Your task to perform on an android device: Open the stopwatch Image 0: 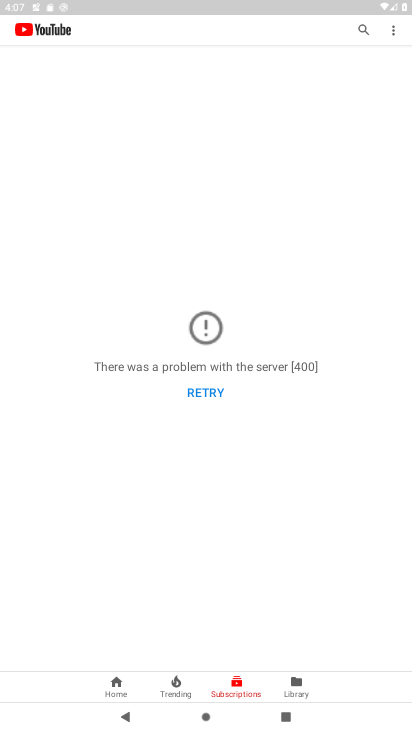
Step 0: press home button
Your task to perform on an android device: Open the stopwatch Image 1: 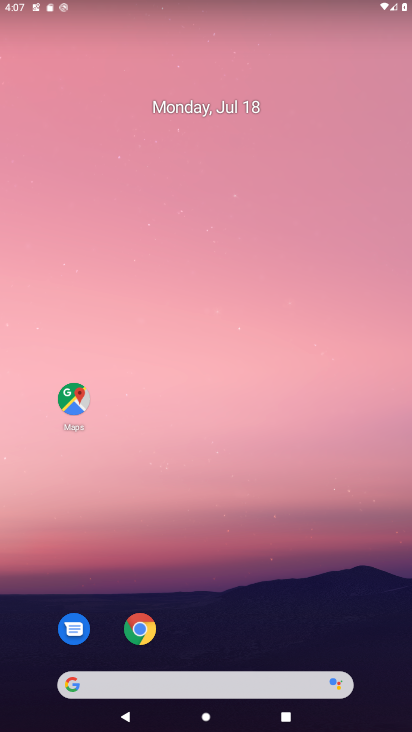
Step 1: drag from (269, 632) to (298, 311)
Your task to perform on an android device: Open the stopwatch Image 2: 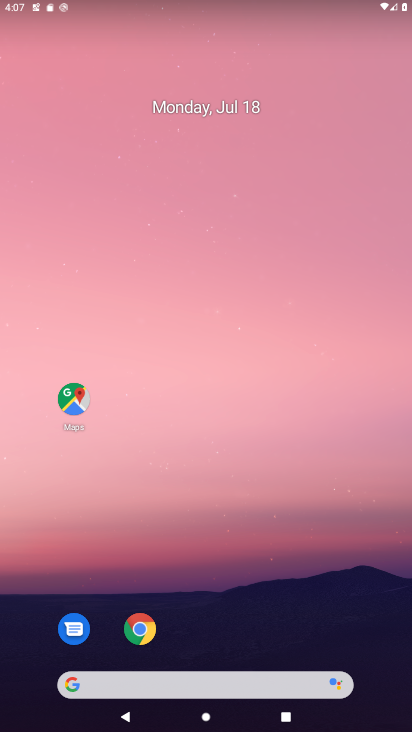
Step 2: drag from (190, 637) to (206, 246)
Your task to perform on an android device: Open the stopwatch Image 3: 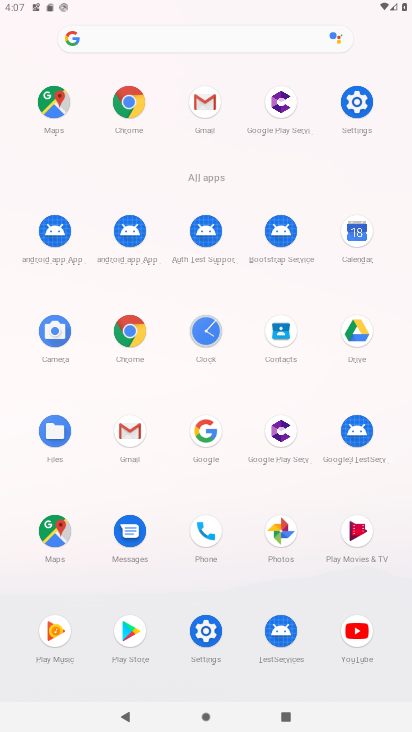
Step 3: click (191, 324)
Your task to perform on an android device: Open the stopwatch Image 4: 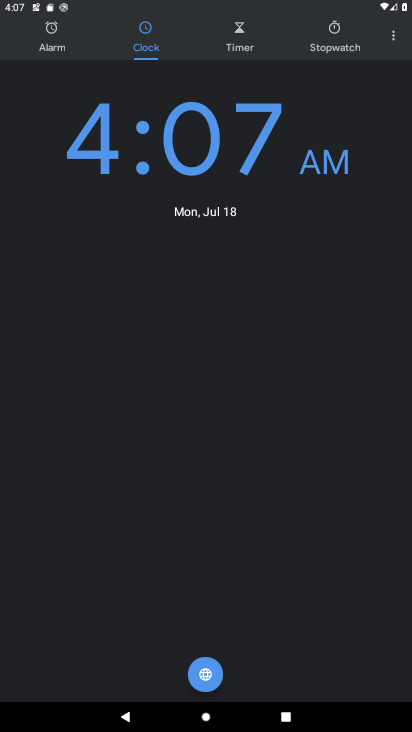
Step 4: click (342, 28)
Your task to perform on an android device: Open the stopwatch Image 5: 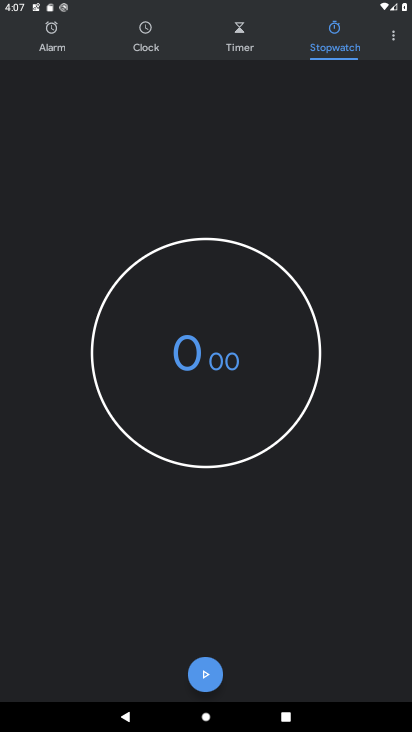
Step 5: task complete